Your task to perform on an android device: Go to Yahoo.com Image 0: 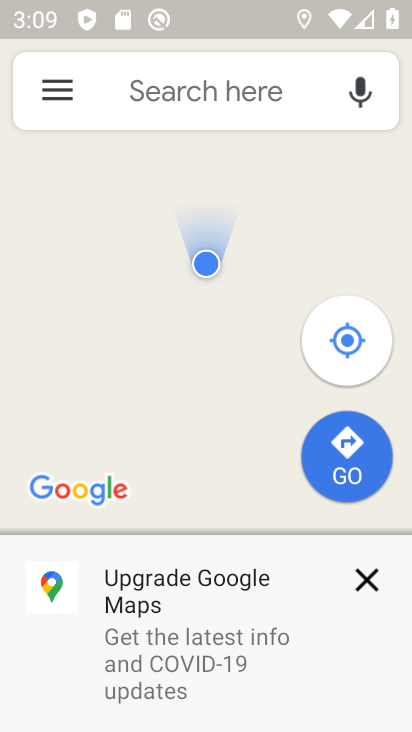
Step 0: press home button
Your task to perform on an android device: Go to Yahoo.com Image 1: 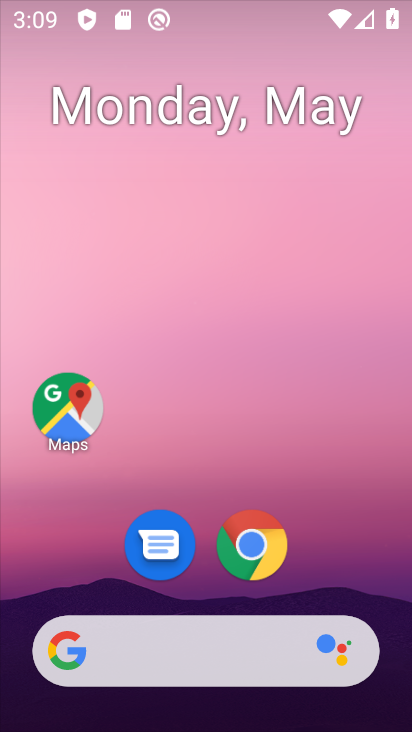
Step 1: click (254, 564)
Your task to perform on an android device: Go to Yahoo.com Image 2: 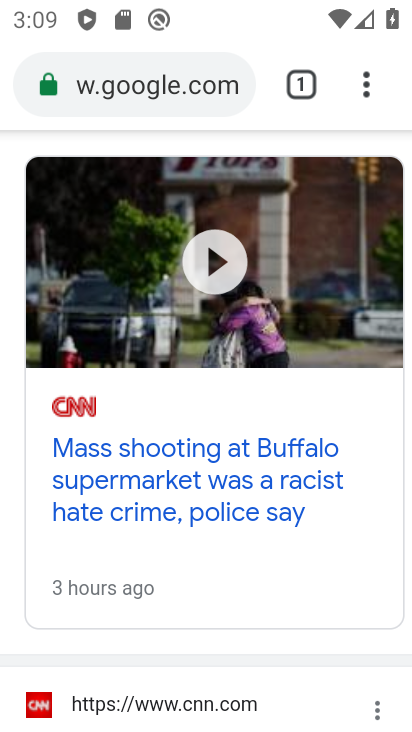
Step 2: click (187, 83)
Your task to perform on an android device: Go to Yahoo.com Image 3: 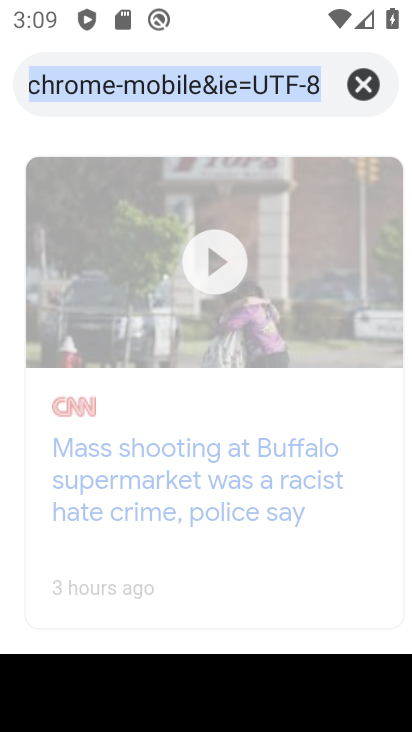
Step 3: type "yahoo.com"
Your task to perform on an android device: Go to Yahoo.com Image 4: 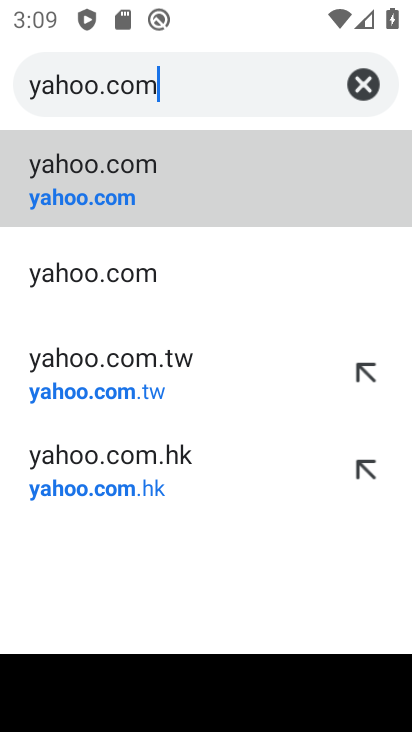
Step 4: click (108, 171)
Your task to perform on an android device: Go to Yahoo.com Image 5: 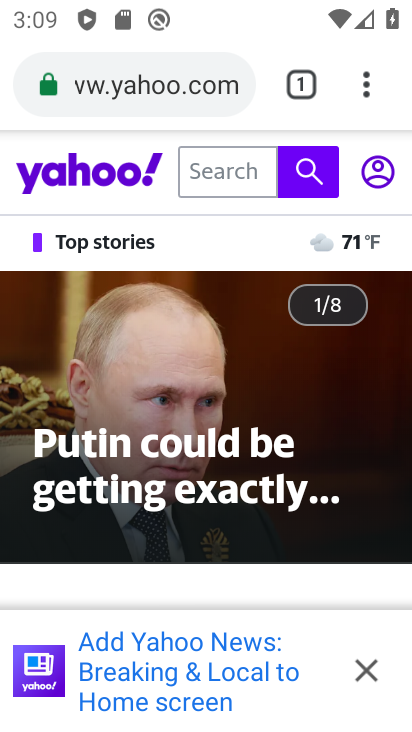
Step 5: task complete